Your task to perform on an android device: toggle notification dots Image 0: 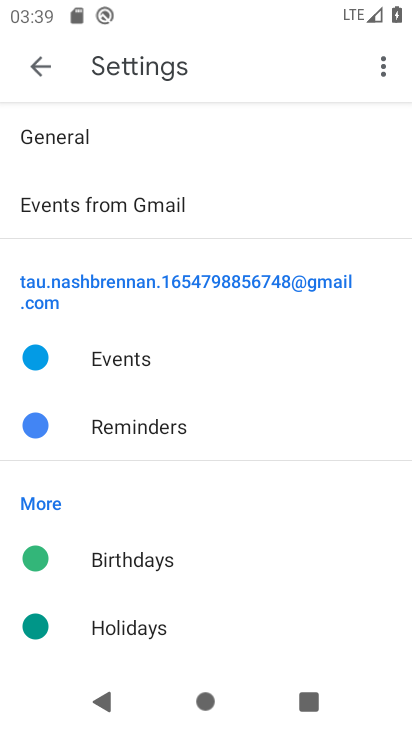
Step 0: press home button
Your task to perform on an android device: toggle notification dots Image 1: 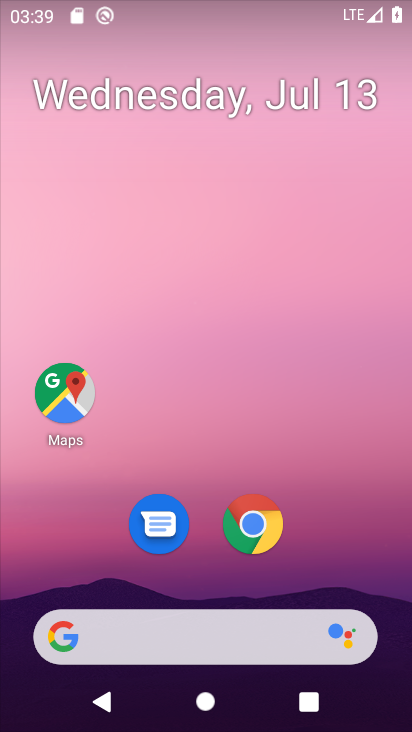
Step 1: drag from (314, 506) to (295, 36)
Your task to perform on an android device: toggle notification dots Image 2: 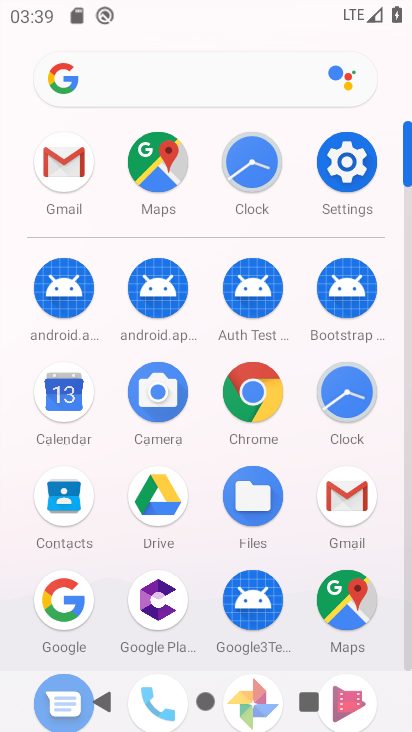
Step 2: click (347, 157)
Your task to perform on an android device: toggle notification dots Image 3: 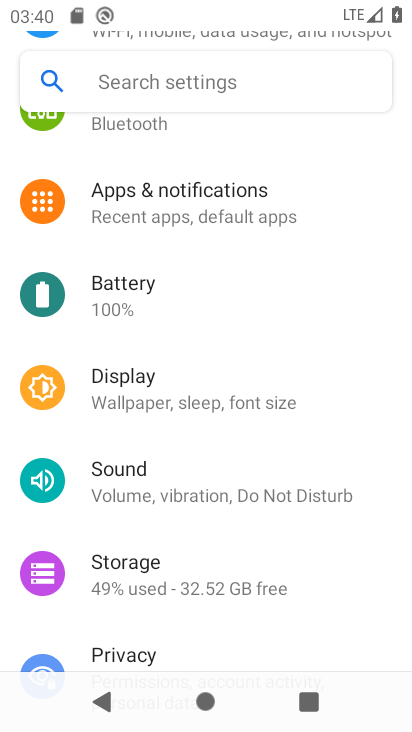
Step 3: click (267, 202)
Your task to perform on an android device: toggle notification dots Image 4: 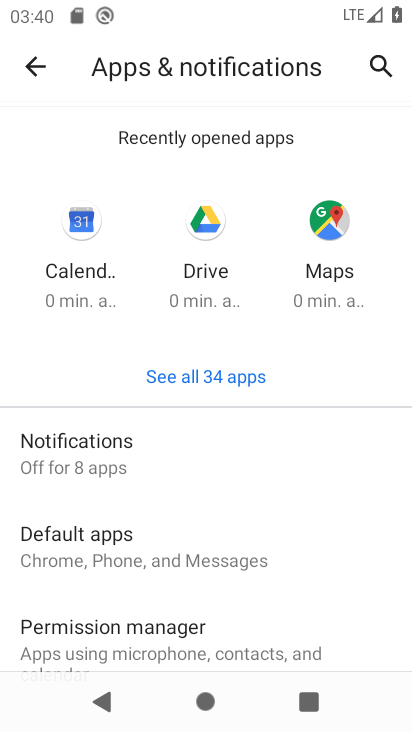
Step 4: click (118, 451)
Your task to perform on an android device: toggle notification dots Image 5: 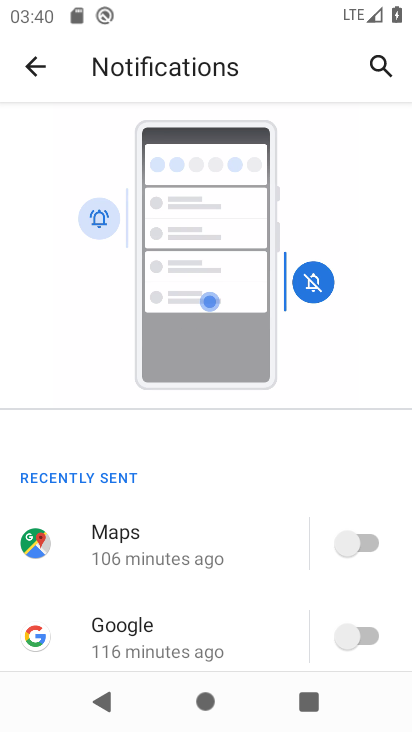
Step 5: drag from (240, 595) to (245, 51)
Your task to perform on an android device: toggle notification dots Image 6: 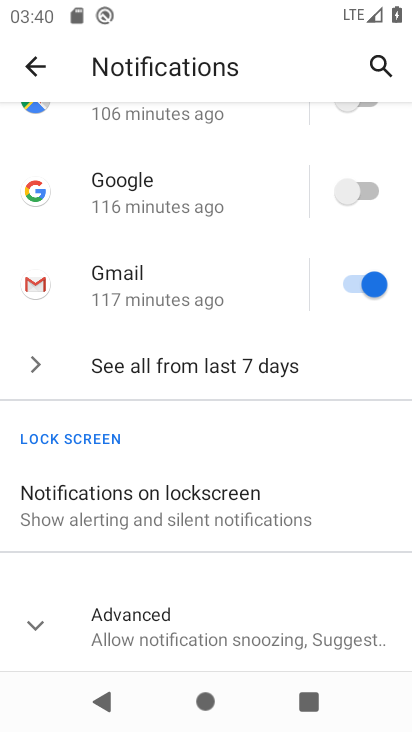
Step 6: click (34, 618)
Your task to perform on an android device: toggle notification dots Image 7: 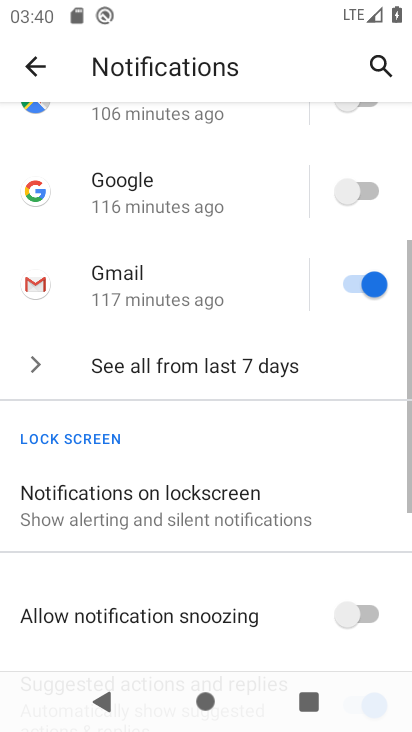
Step 7: drag from (221, 574) to (192, 190)
Your task to perform on an android device: toggle notification dots Image 8: 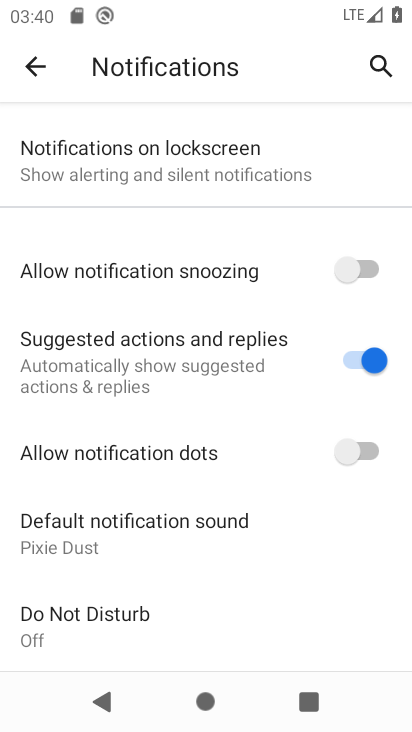
Step 8: click (364, 450)
Your task to perform on an android device: toggle notification dots Image 9: 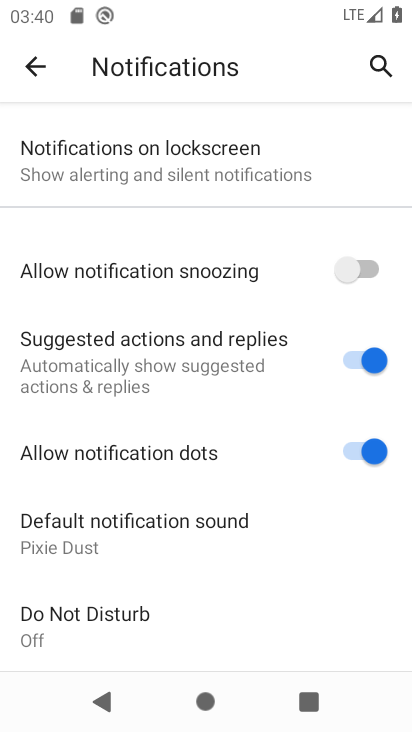
Step 9: task complete